Your task to perform on an android device: empty trash in the gmail app Image 0: 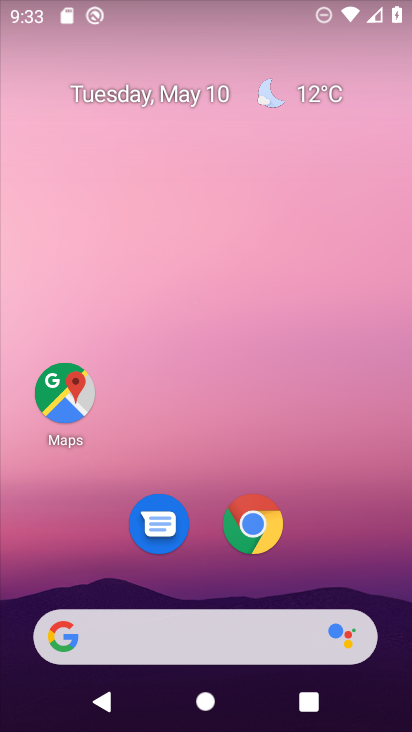
Step 0: drag from (337, 530) to (285, 60)
Your task to perform on an android device: empty trash in the gmail app Image 1: 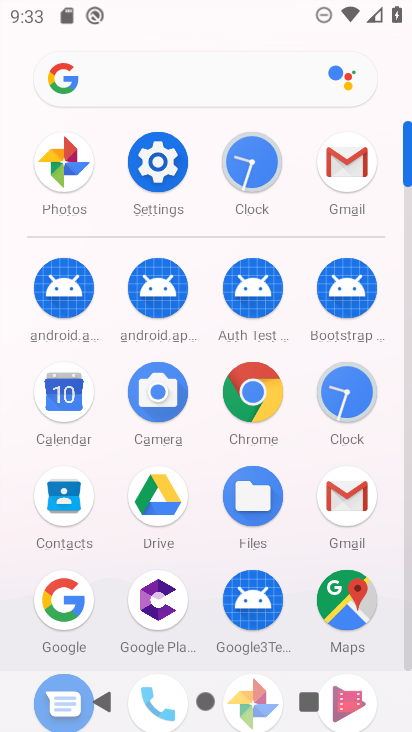
Step 1: click (348, 166)
Your task to perform on an android device: empty trash in the gmail app Image 2: 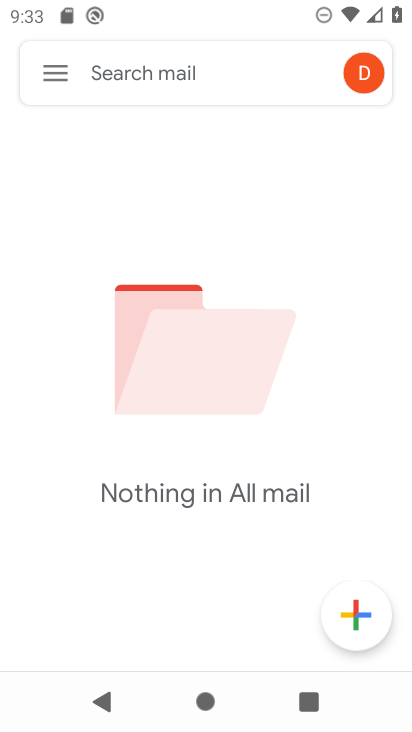
Step 2: click (51, 68)
Your task to perform on an android device: empty trash in the gmail app Image 3: 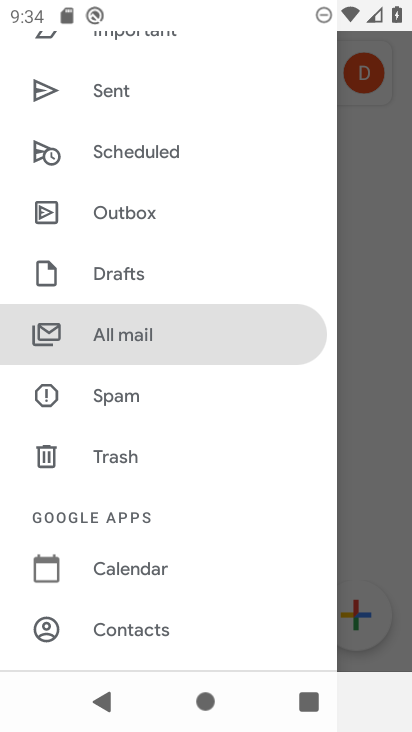
Step 3: click (109, 455)
Your task to perform on an android device: empty trash in the gmail app Image 4: 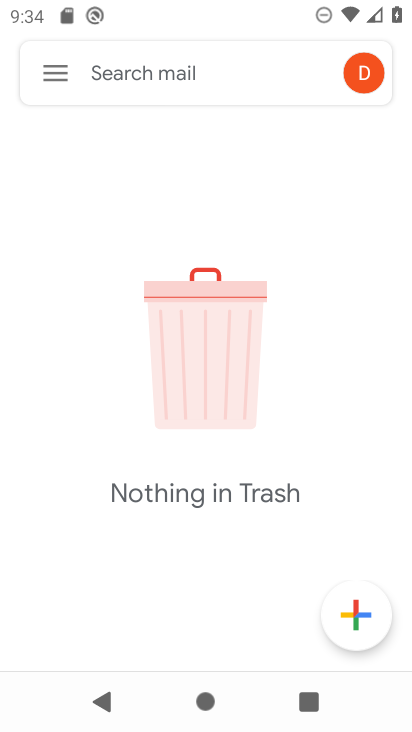
Step 4: task complete